Your task to perform on an android device: open chrome and create a bookmark for the current page Image 0: 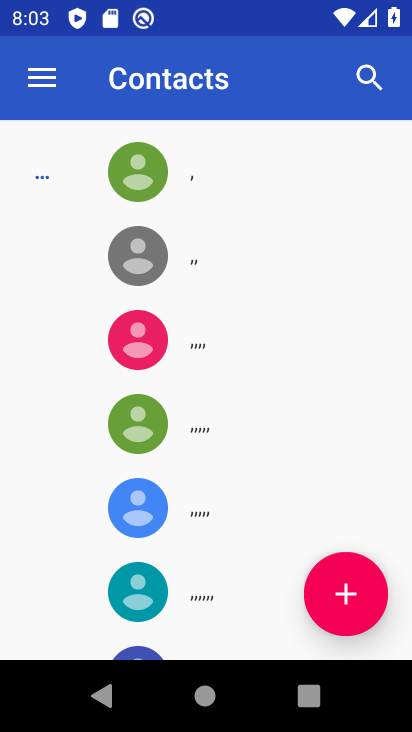
Step 0: press home button
Your task to perform on an android device: open chrome and create a bookmark for the current page Image 1: 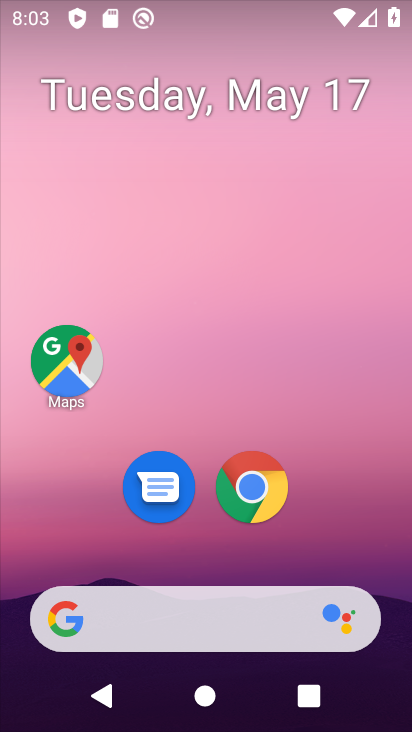
Step 1: drag from (252, 660) to (278, 290)
Your task to perform on an android device: open chrome and create a bookmark for the current page Image 2: 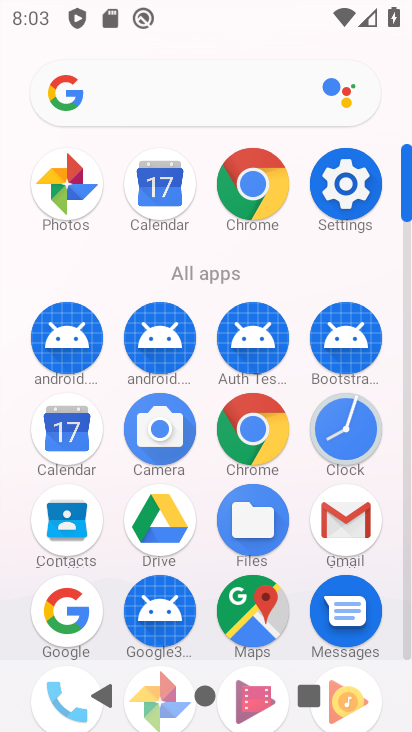
Step 2: click (261, 202)
Your task to perform on an android device: open chrome and create a bookmark for the current page Image 3: 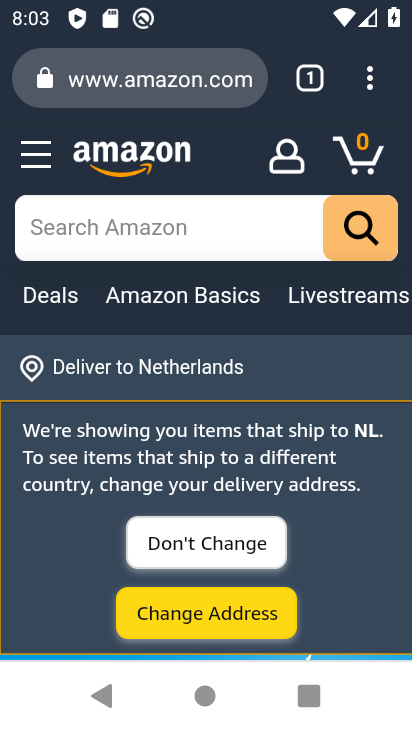
Step 3: click (360, 82)
Your task to perform on an android device: open chrome and create a bookmark for the current page Image 4: 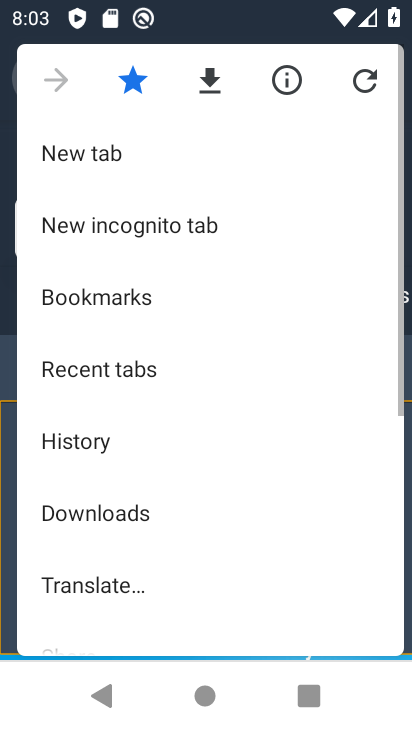
Step 4: click (93, 295)
Your task to perform on an android device: open chrome and create a bookmark for the current page Image 5: 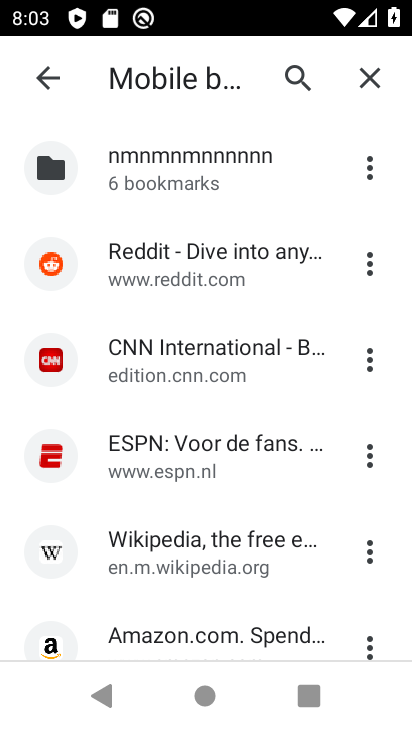
Step 5: task complete